Your task to perform on an android device: Go to calendar. Show me events next week Image 0: 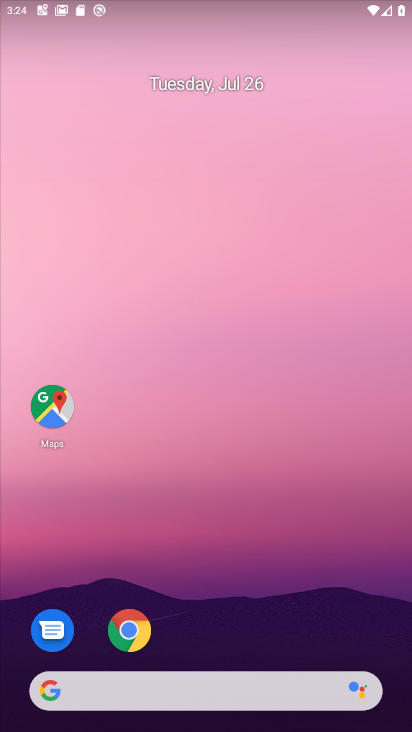
Step 0: click (201, 94)
Your task to perform on an android device: Go to calendar. Show me events next week Image 1: 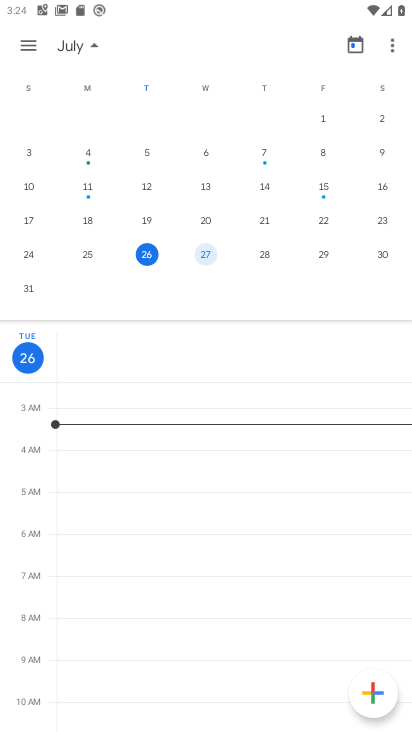
Step 1: click (22, 46)
Your task to perform on an android device: Go to calendar. Show me events next week Image 2: 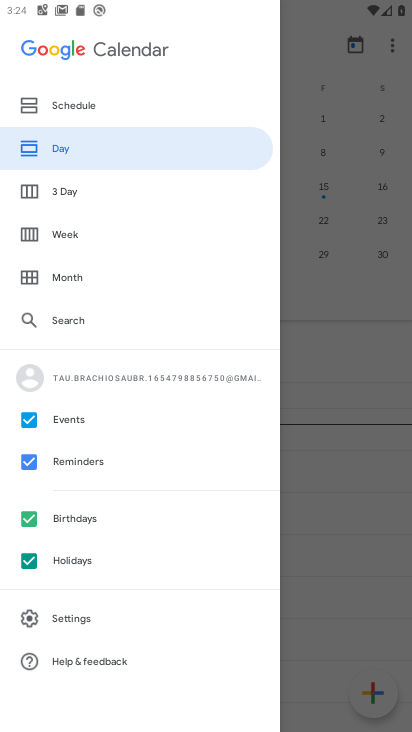
Step 2: click (28, 464)
Your task to perform on an android device: Go to calendar. Show me events next week Image 3: 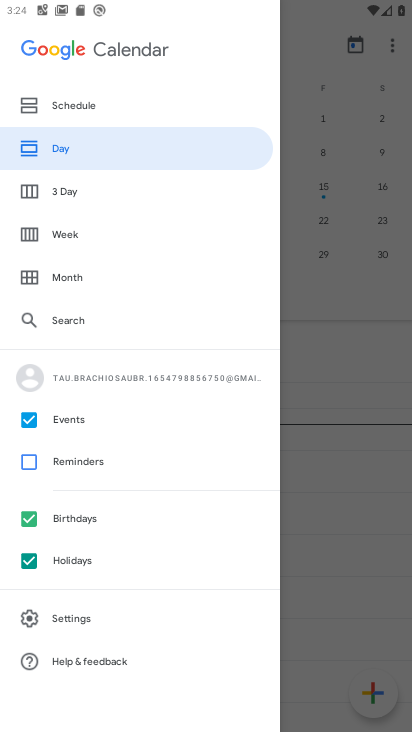
Step 3: click (28, 517)
Your task to perform on an android device: Go to calendar. Show me events next week Image 4: 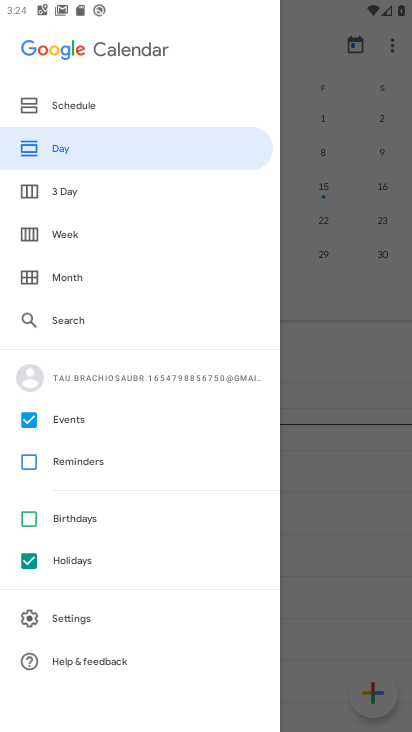
Step 4: click (28, 561)
Your task to perform on an android device: Go to calendar. Show me events next week Image 5: 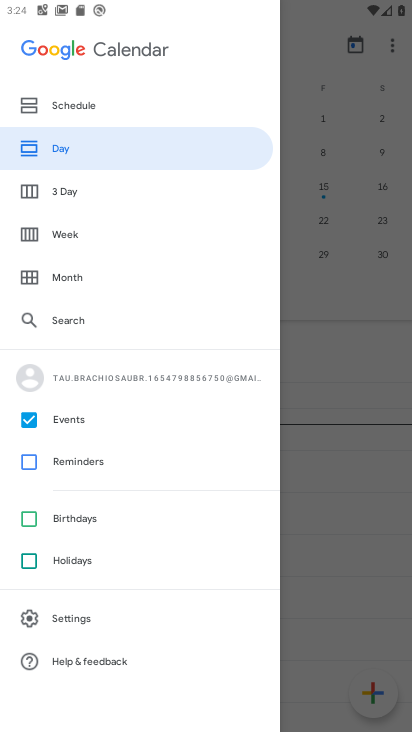
Step 5: click (74, 222)
Your task to perform on an android device: Go to calendar. Show me events next week Image 6: 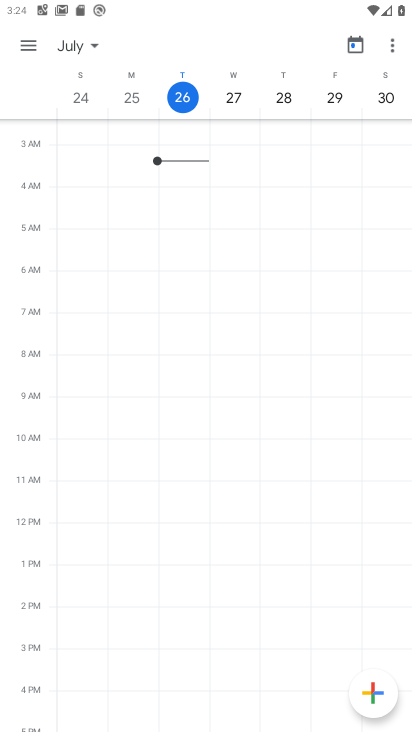
Step 6: click (94, 47)
Your task to perform on an android device: Go to calendar. Show me events next week Image 7: 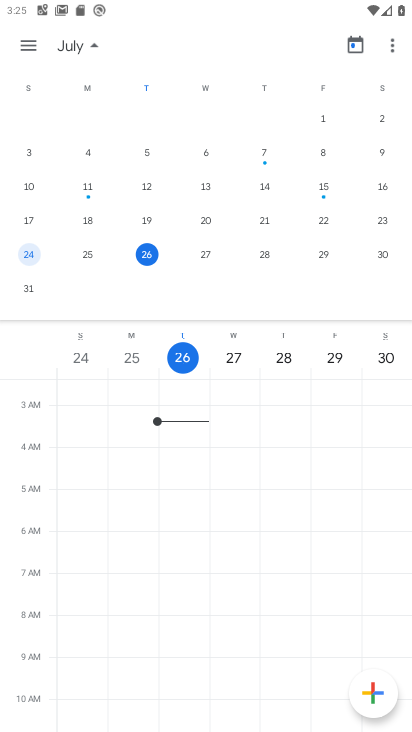
Step 7: drag from (329, 281) to (41, 287)
Your task to perform on an android device: Go to calendar. Show me events next week Image 8: 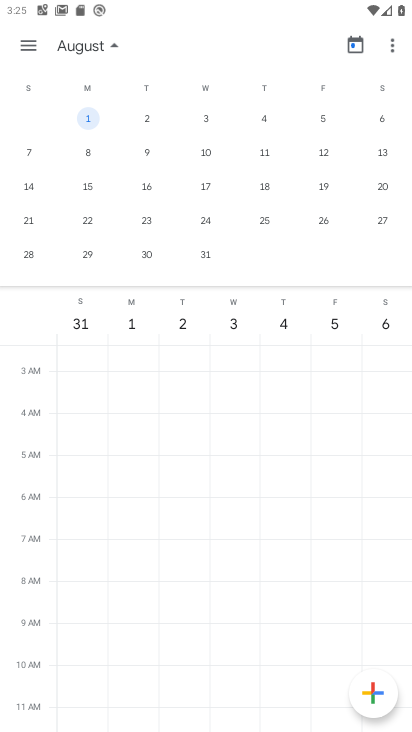
Step 8: click (147, 120)
Your task to perform on an android device: Go to calendar. Show me events next week Image 9: 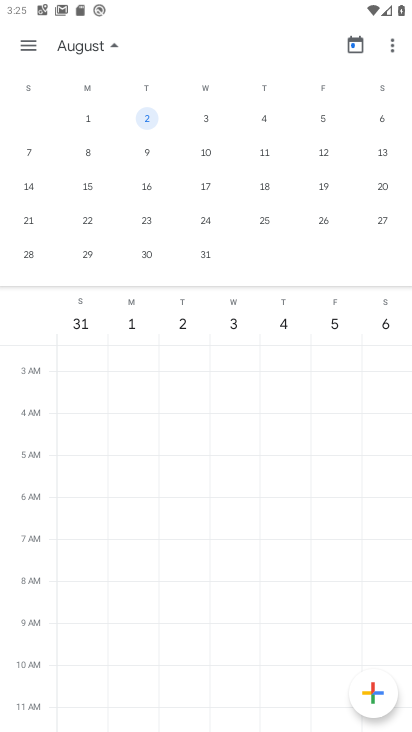
Step 9: task complete